Your task to perform on an android device: install app "Google Drive" Image 0: 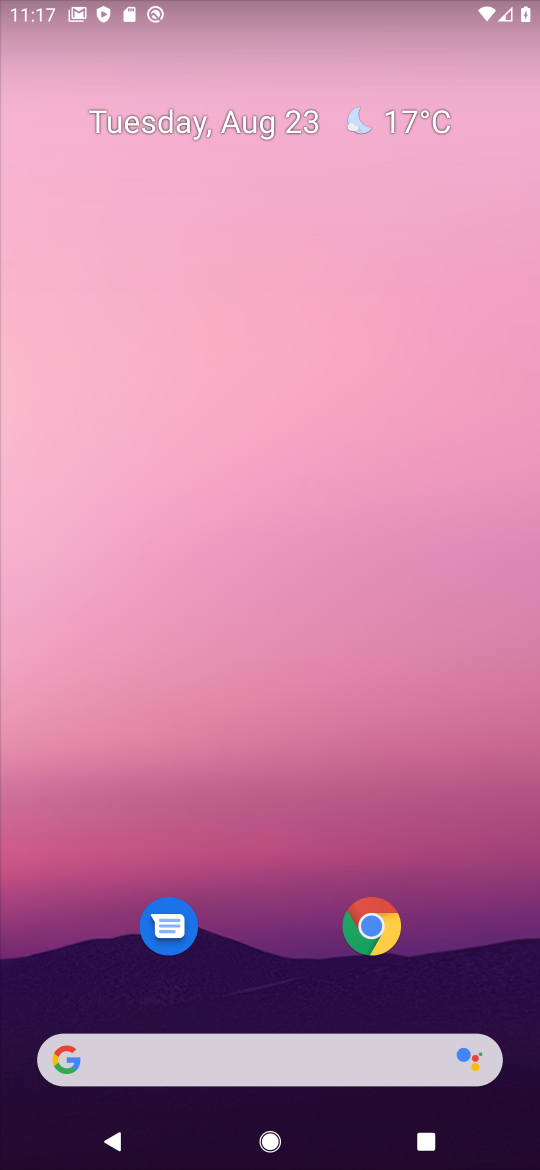
Step 0: drag from (238, 943) to (404, 8)
Your task to perform on an android device: install app "Google Drive" Image 1: 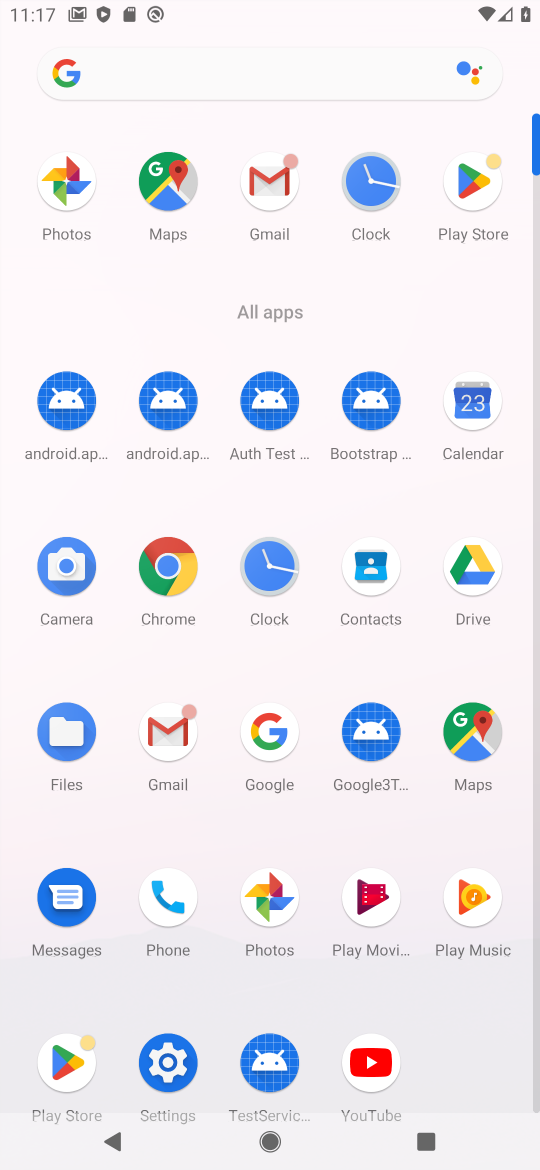
Step 1: drag from (63, 1062) to (386, 525)
Your task to perform on an android device: install app "Google Drive" Image 2: 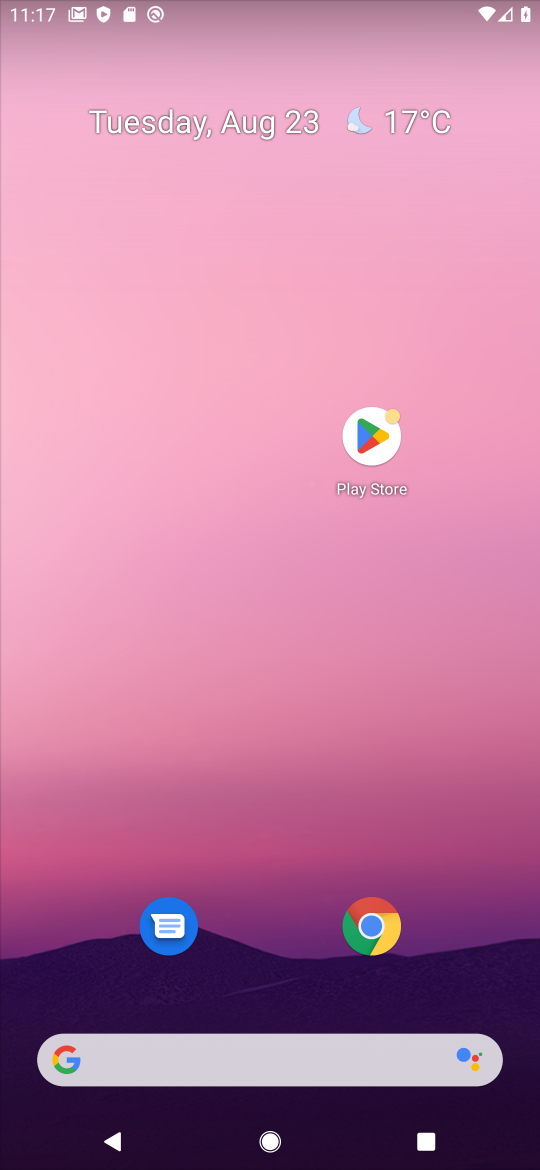
Step 2: click (363, 442)
Your task to perform on an android device: install app "Google Drive" Image 3: 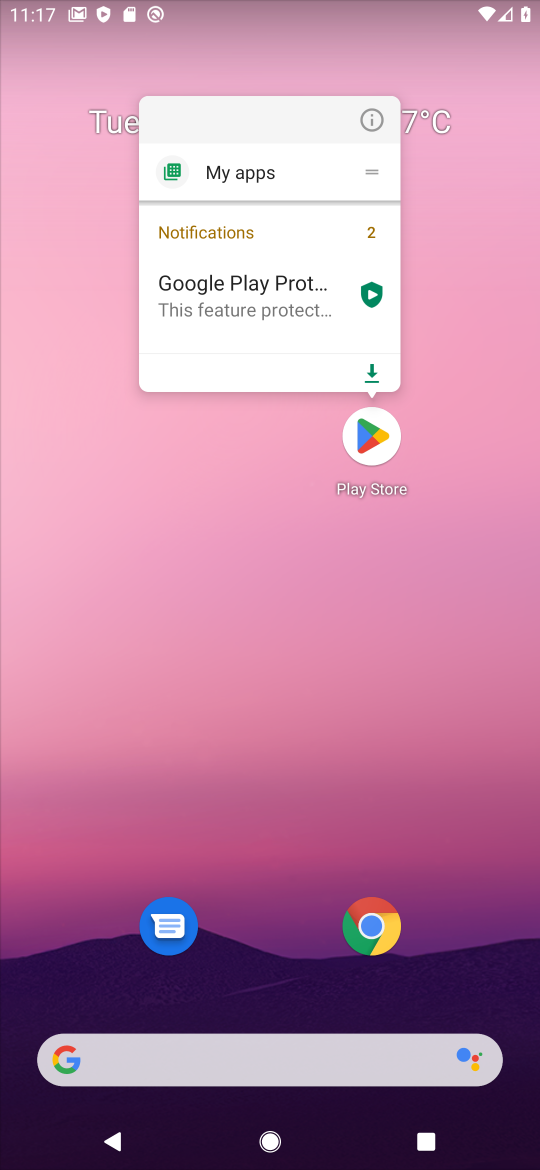
Step 3: click (363, 445)
Your task to perform on an android device: install app "Google Drive" Image 4: 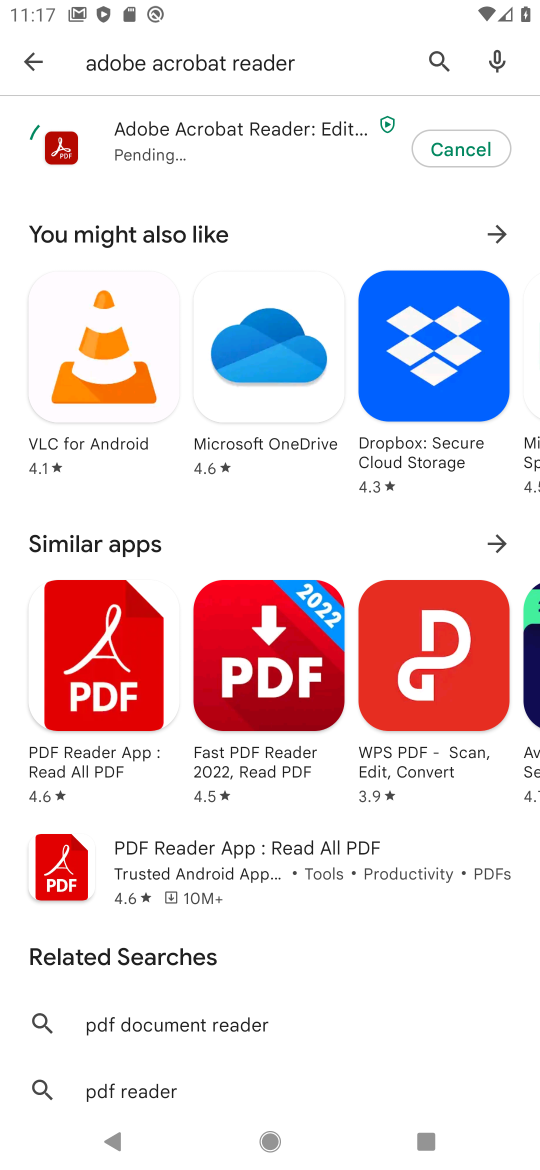
Step 4: click (433, 62)
Your task to perform on an android device: install app "Google Drive" Image 5: 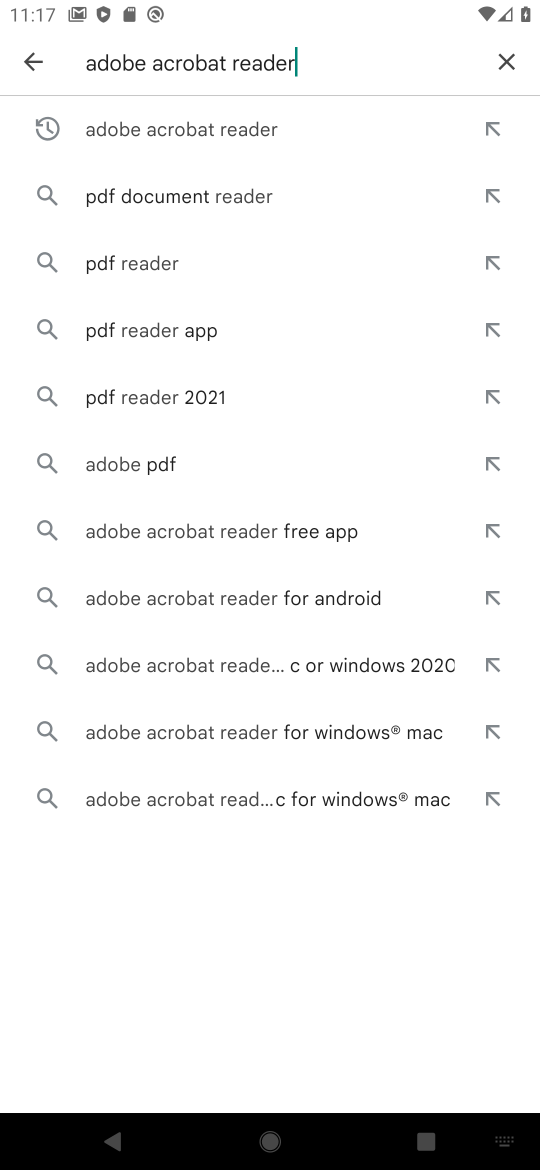
Step 5: click (504, 64)
Your task to perform on an android device: install app "Google Drive" Image 6: 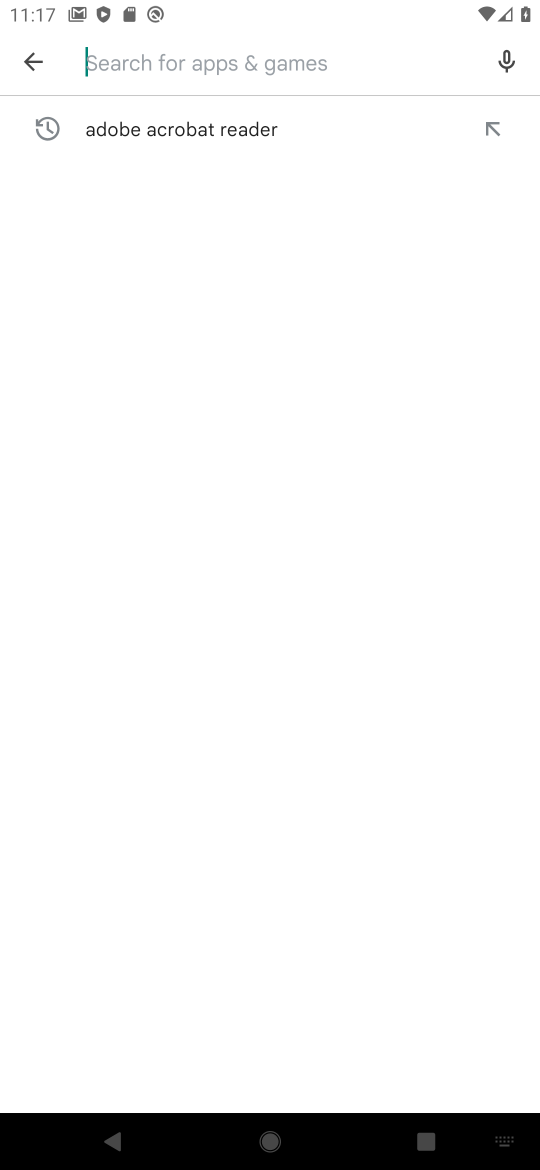
Step 6: type "Google Drive"
Your task to perform on an android device: install app "Google Drive" Image 7: 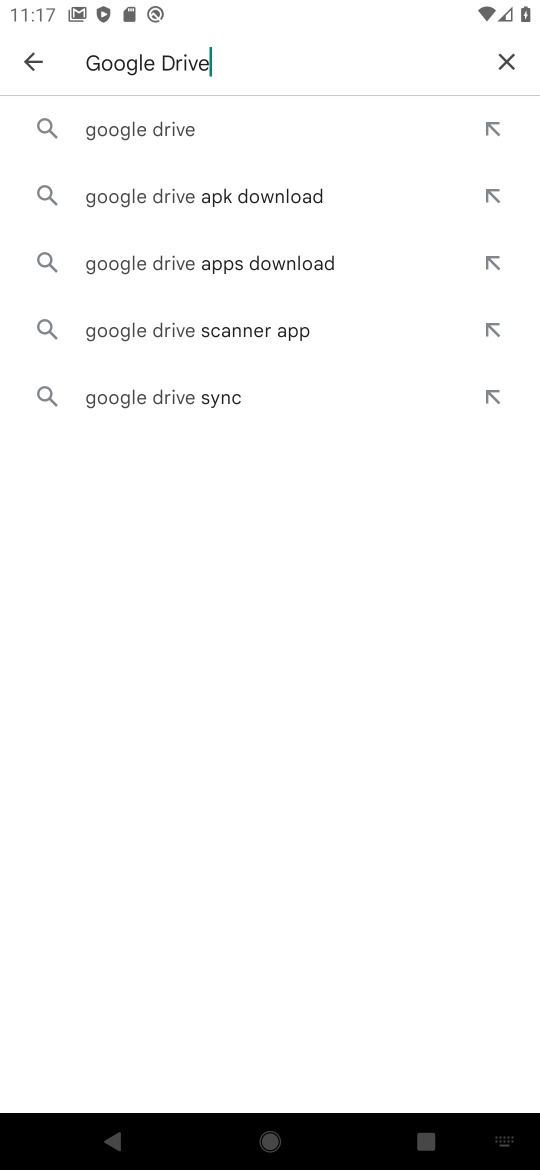
Step 7: click (163, 133)
Your task to perform on an android device: install app "Google Drive" Image 8: 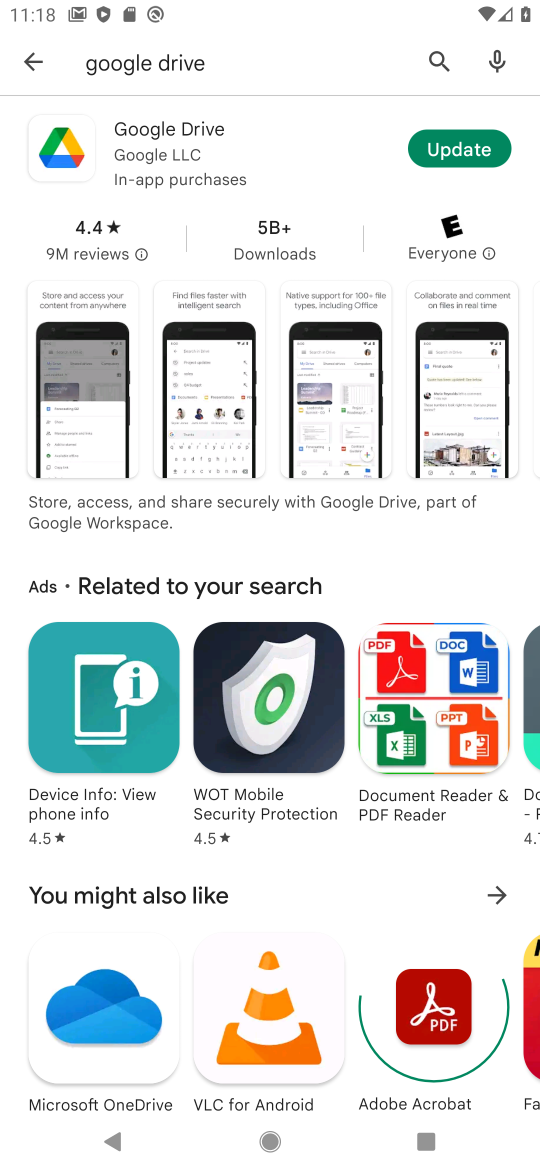
Step 8: click (127, 135)
Your task to perform on an android device: install app "Google Drive" Image 9: 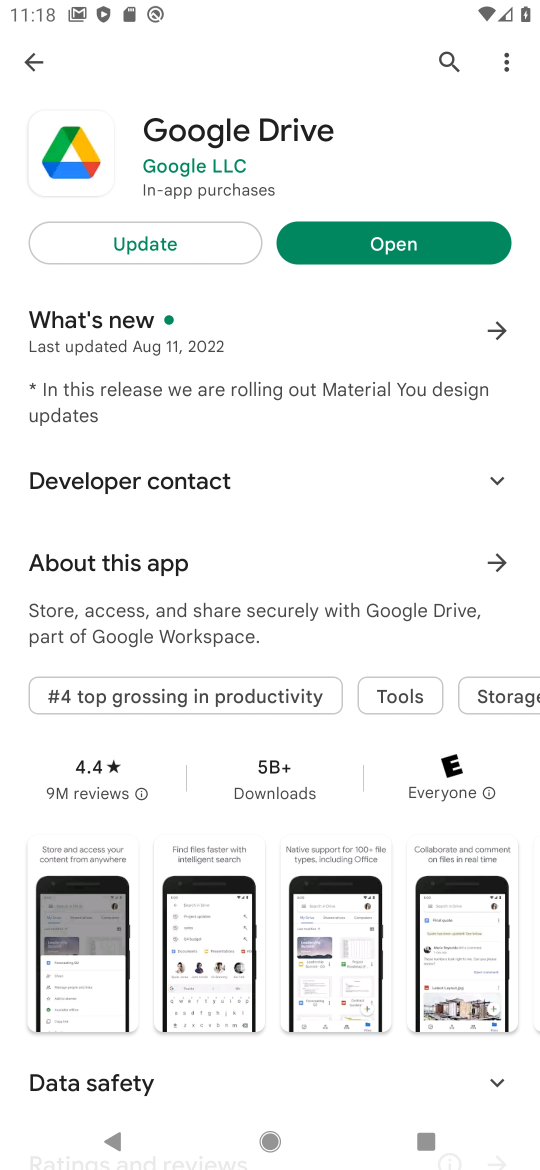
Step 9: task complete